Your task to perform on an android device: Open Google Chrome and click the shortcut for Amazon.com Image 0: 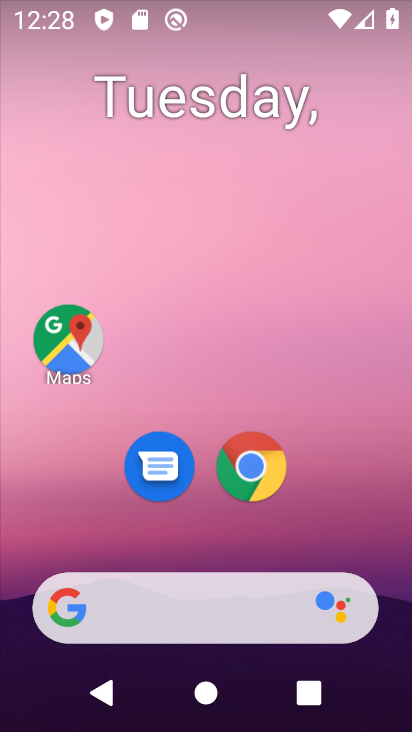
Step 0: drag from (373, 542) to (375, 130)
Your task to perform on an android device: Open Google Chrome and click the shortcut for Amazon.com Image 1: 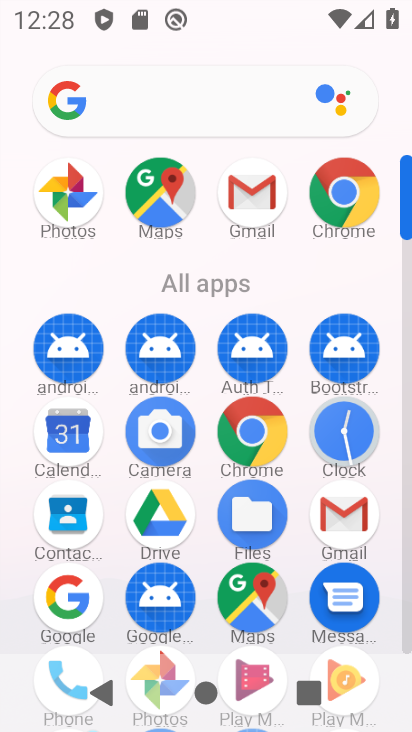
Step 1: click (244, 433)
Your task to perform on an android device: Open Google Chrome and click the shortcut for Amazon.com Image 2: 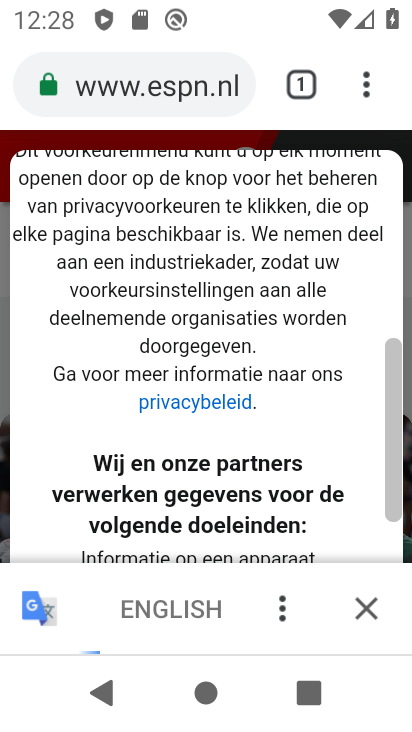
Step 2: click (363, 87)
Your task to perform on an android device: Open Google Chrome and click the shortcut for Amazon.com Image 3: 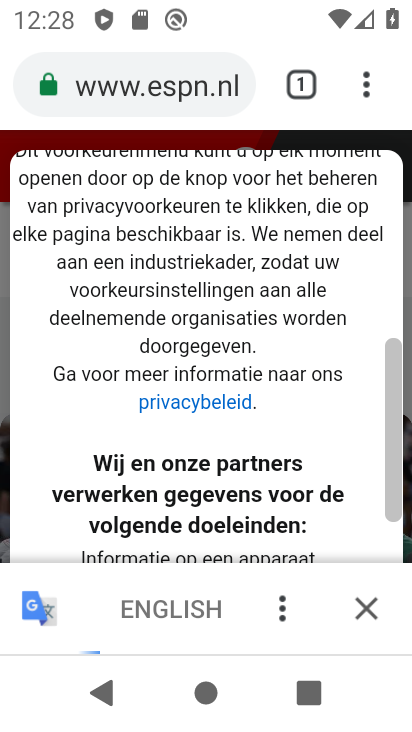
Step 3: press back button
Your task to perform on an android device: Open Google Chrome and click the shortcut for Amazon.com Image 4: 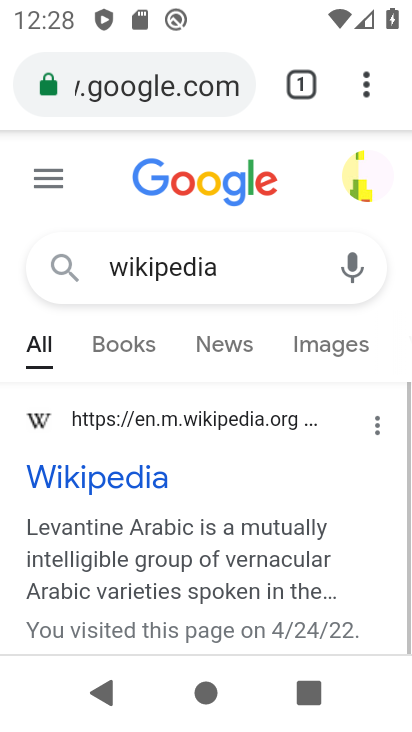
Step 4: press back button
Your task to perform on an android device: Open Google Chrome and click the shortcut for Amazon.com Image 5: 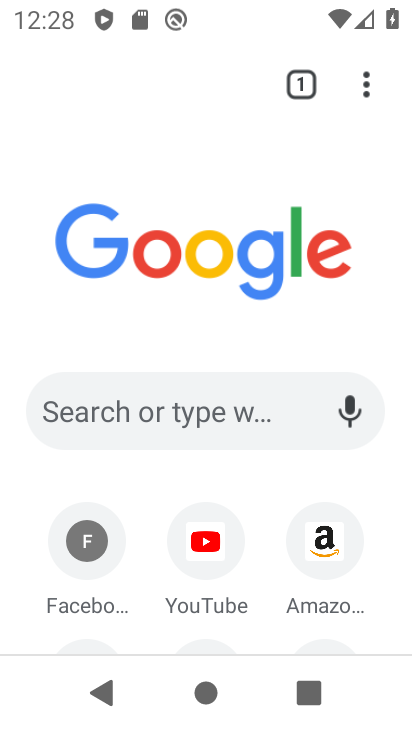
Step 5: click (331, 544)
Your task to perform on an android device: Open Google Chrome and click the shortcut for Amazon.com Image 6: 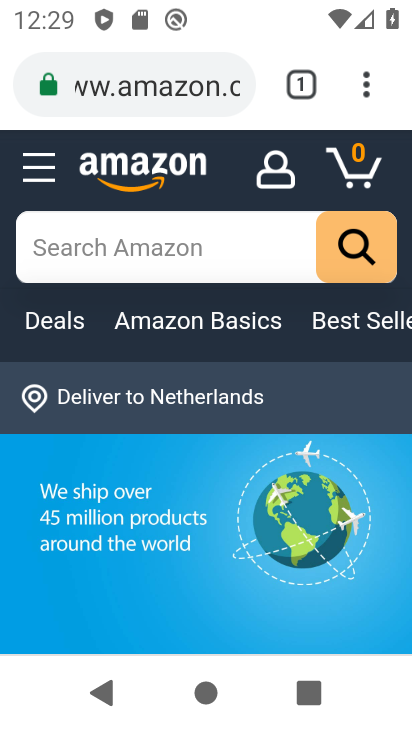
Step 6: task complete